Your task to perform on an android device: set an alarm Image 0: 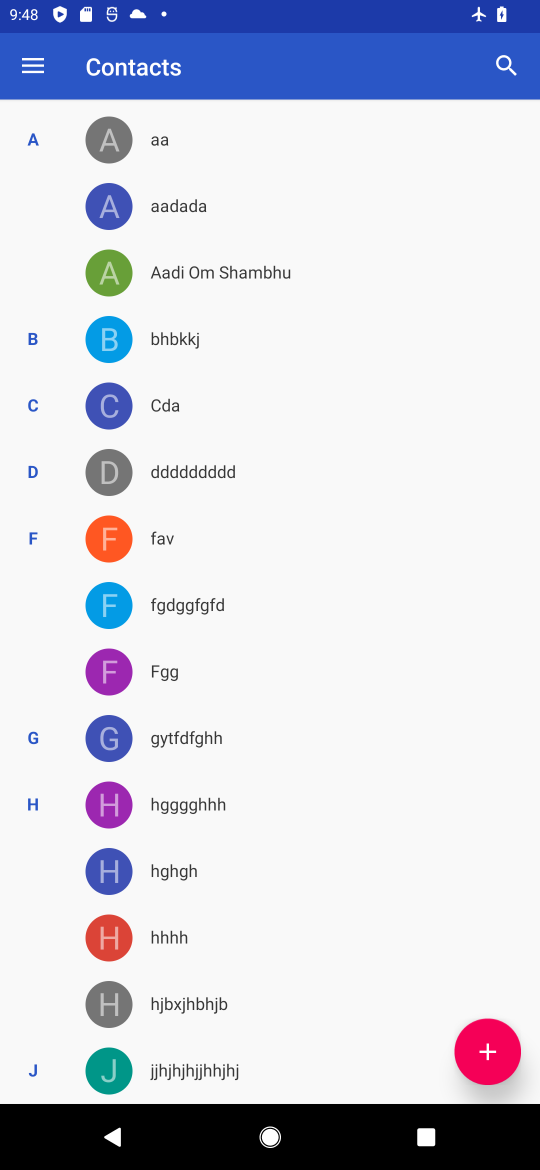
Step 0: press home button
Your task to perform on an android device: set an alarm Image 1: 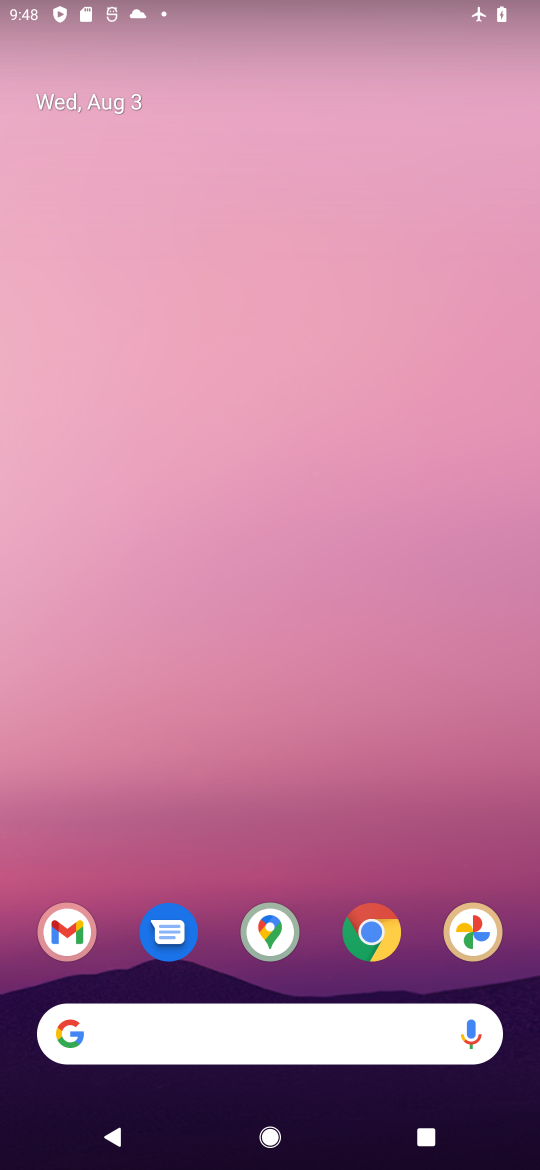
Step 1: drag from (326, 871) to (342, 72)
Your task to perform on an android device: set an alarm Image 2: 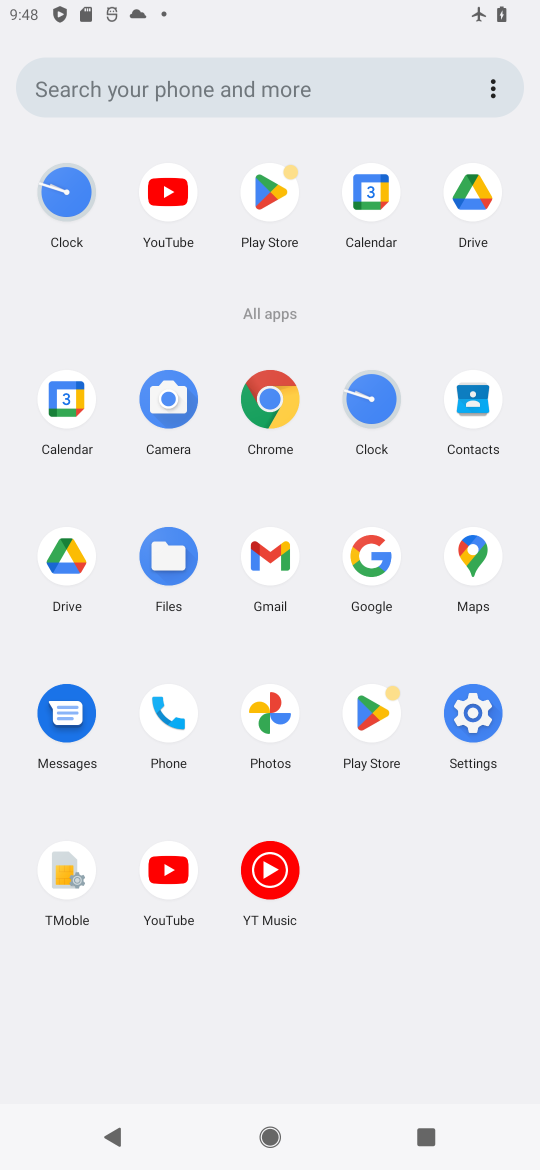
Step 2: click (371, 411)
Your task to perform on an android device: set an alarm Image 3: 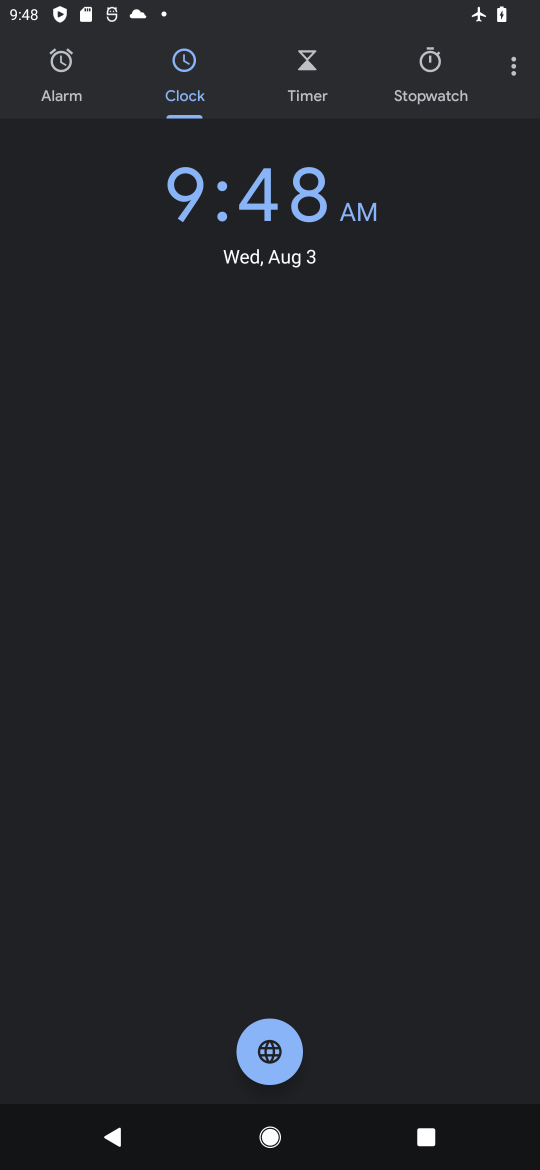
Step 3: click (59, 92)
Your task to perform on an android device: set an alarm Image 4: 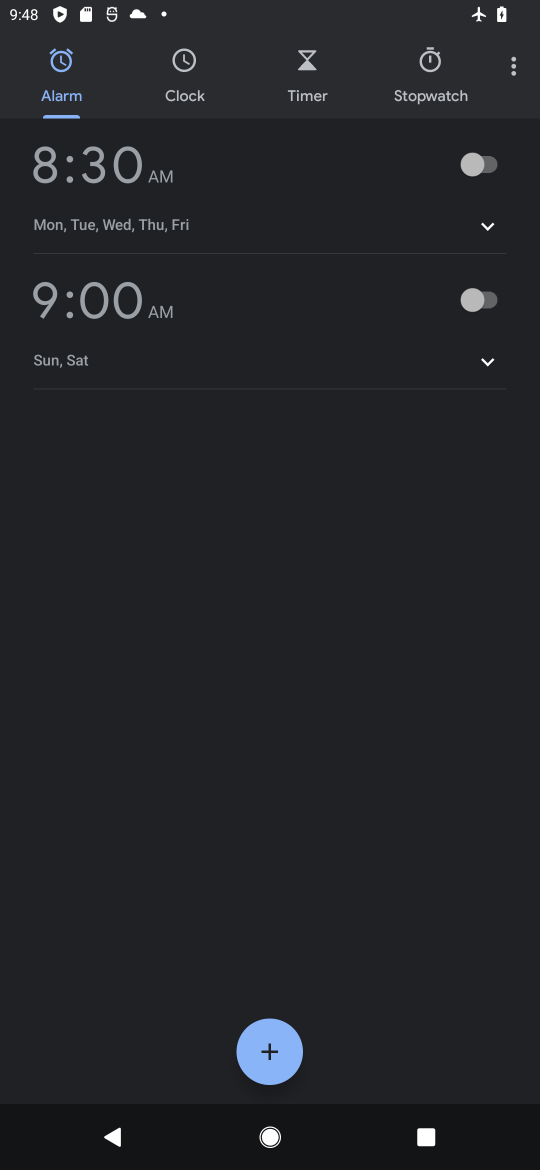
Step 4: click (279, 1064)
Your task to perform on an android device: set an alarm Image 5: 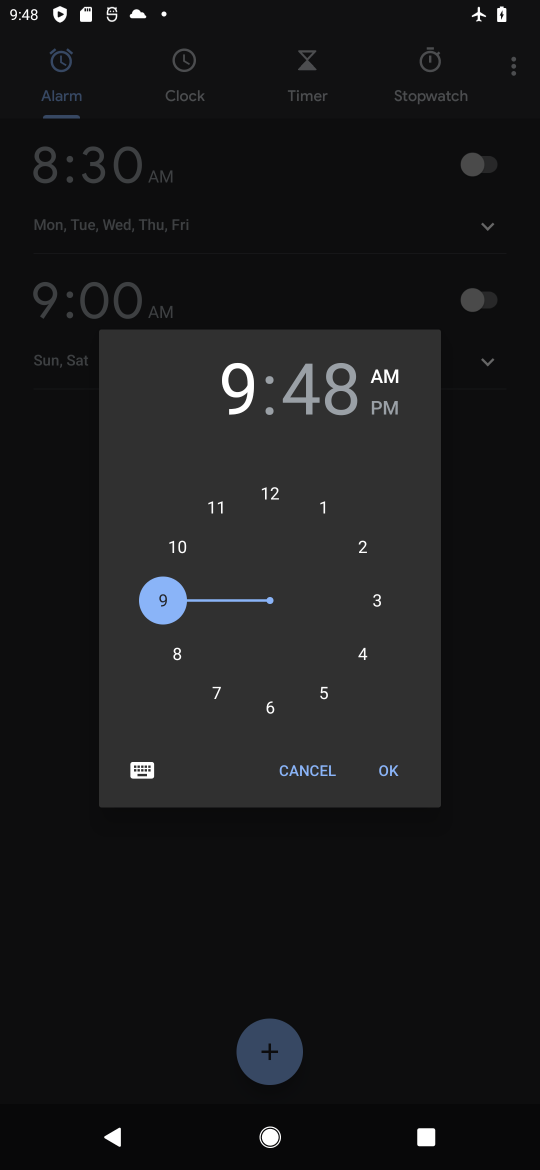
Step 5: click (389, 782)
Your task to perform on an android device: set an alarm Image 6: 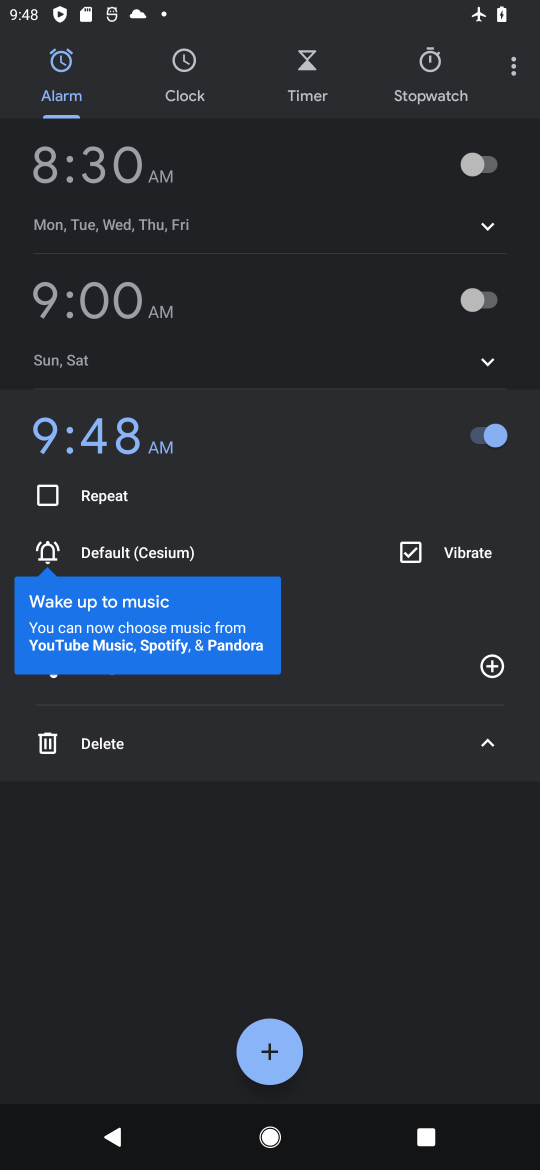
Step 6: task complete